Your task to perform on an android device: Add macbook pro 15 inch to the cart on newegg Image 0: 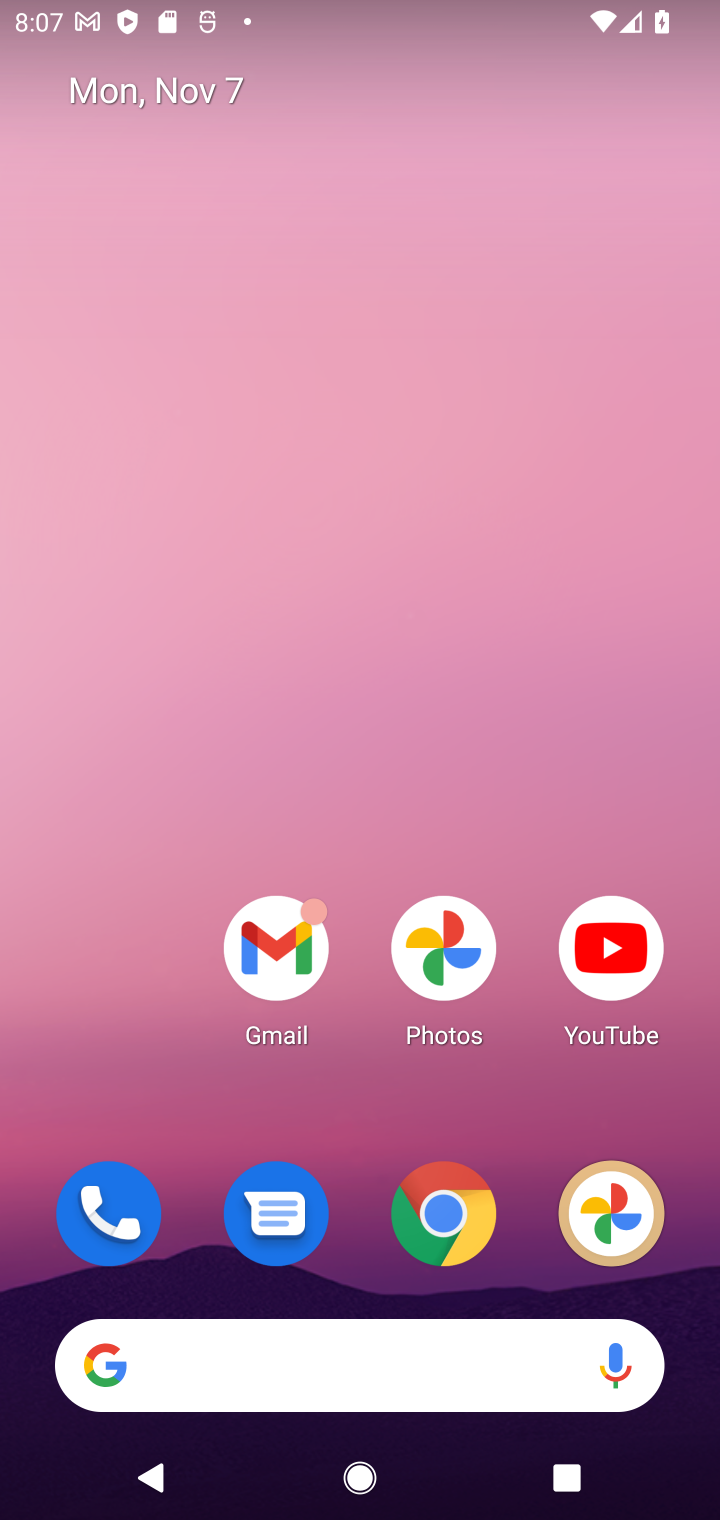
Step 0: click (440, 1216)
Your task to perform on an android device: Add macbook pro 15 inch to the cart on newegg Image 1: 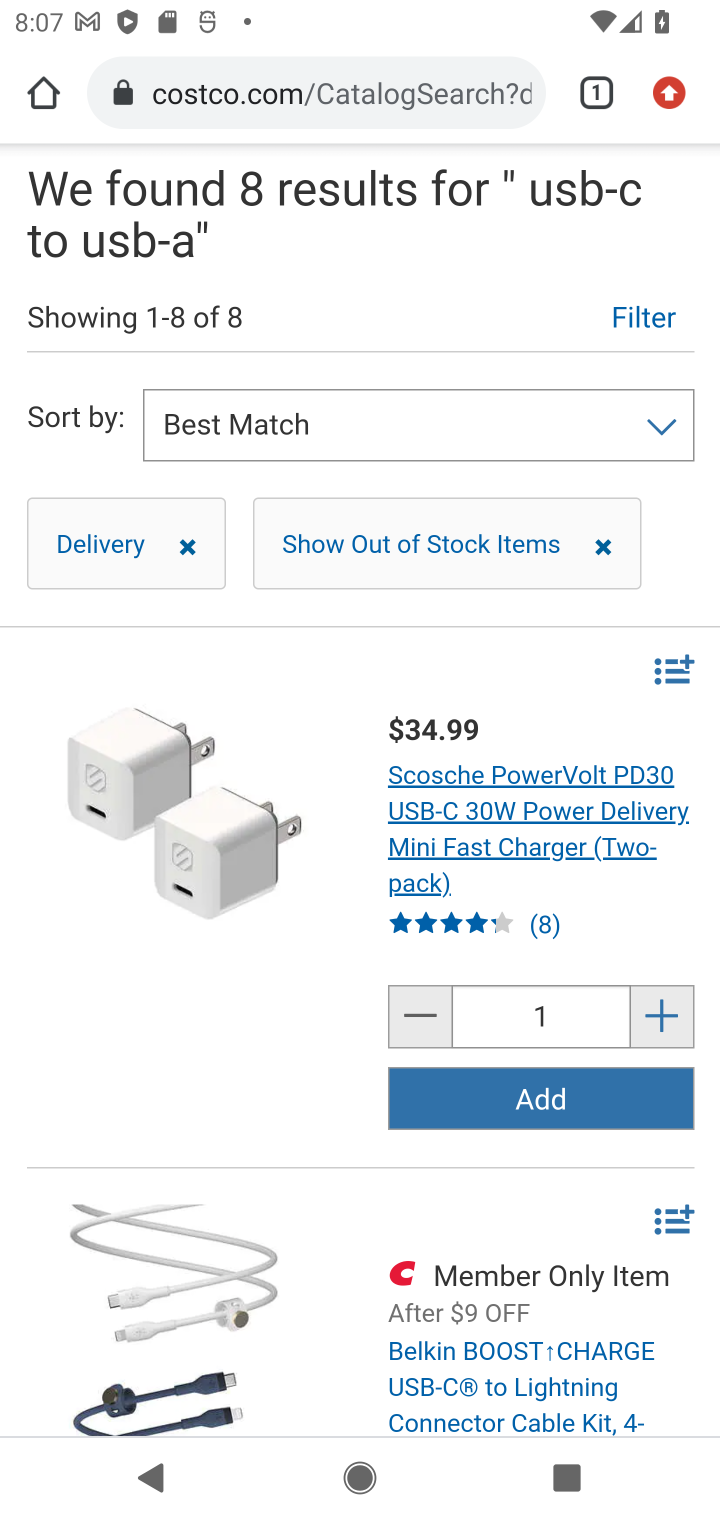
Step 1: click (274, 96)
Your task to perform on an android device: Add macbook pro 15 inch to the cart on newegg Image 2: 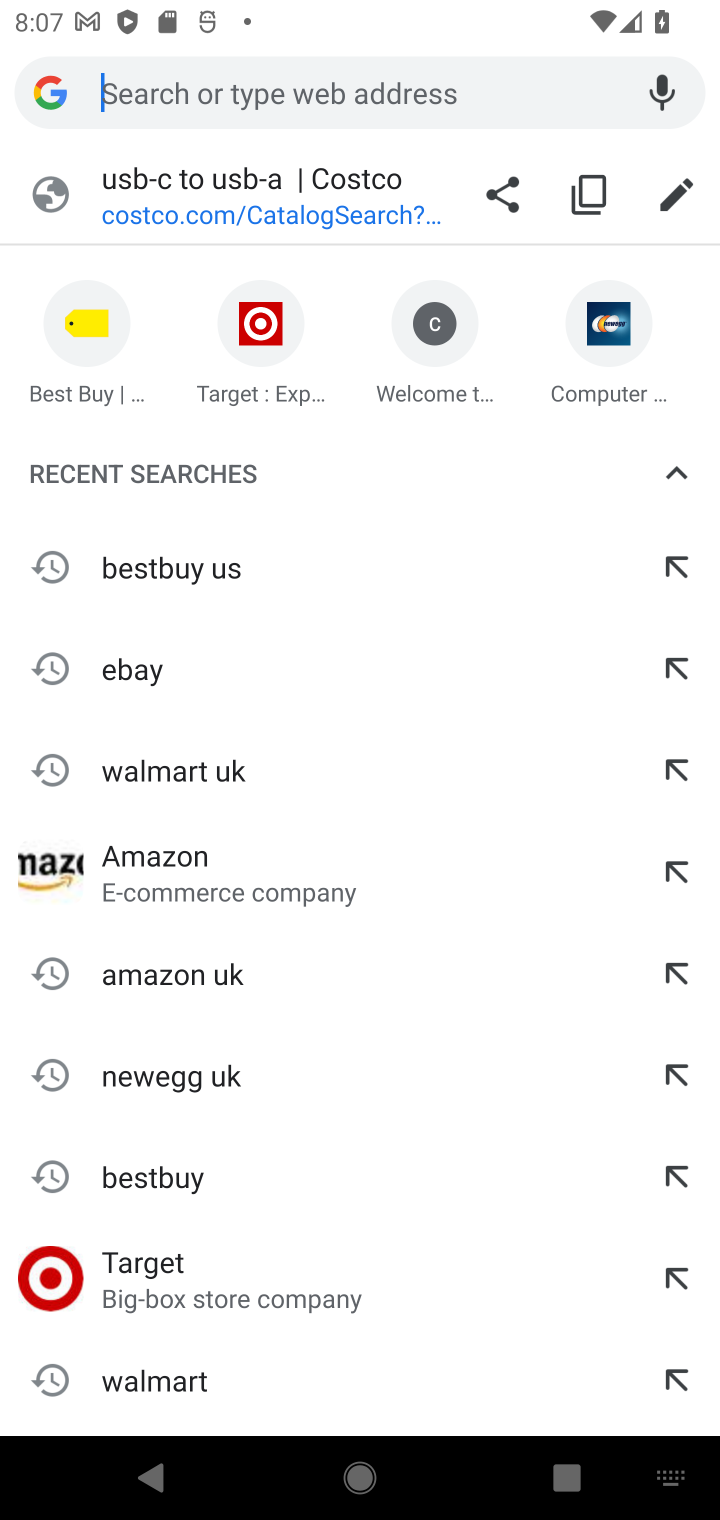
Step 2: type "newegg.com"
Your task to perform on an android device: Add macbook pro 15 inch to the cart on newegg Image 3: 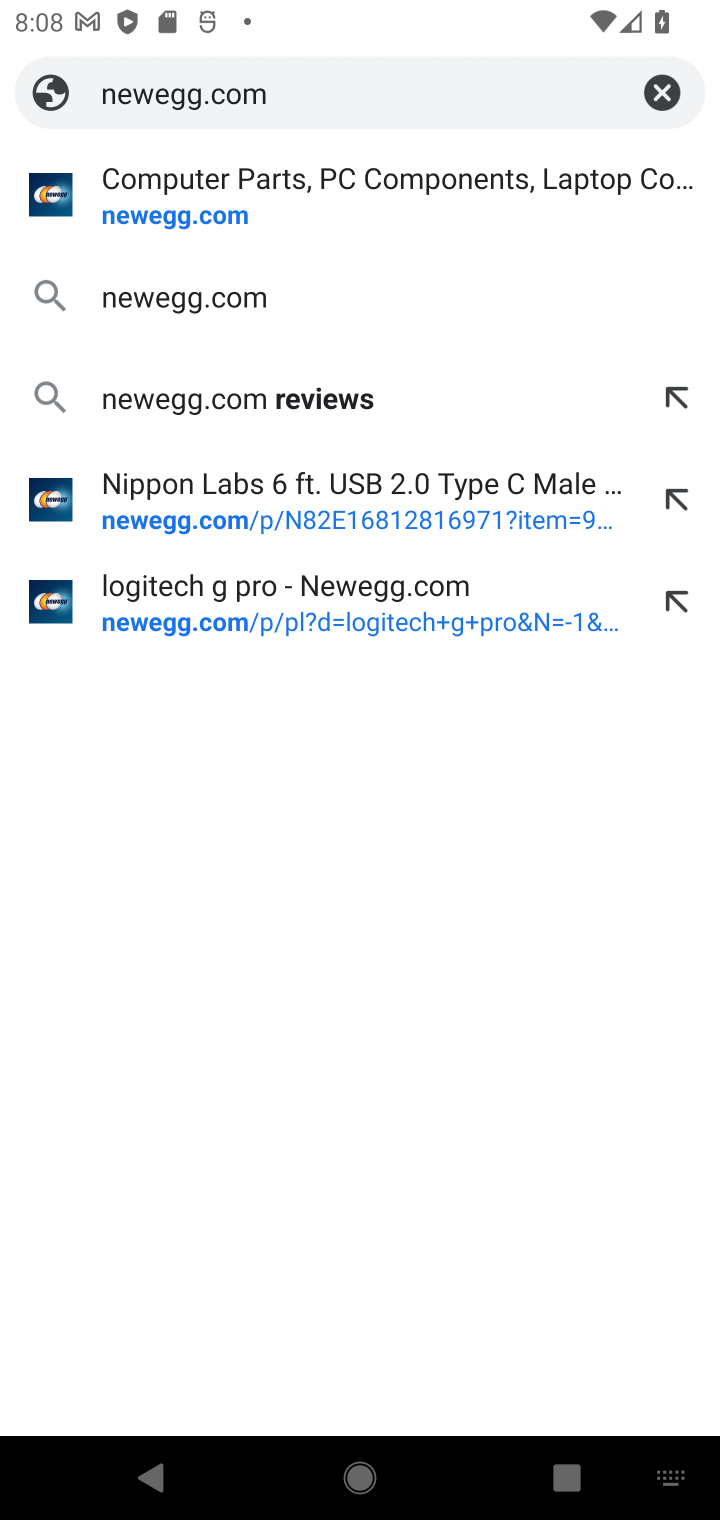
Step 3: click (165, 224)
Your task to perform on an android device: Add macbook pro 15 inch to the cart on newegg Image 4: 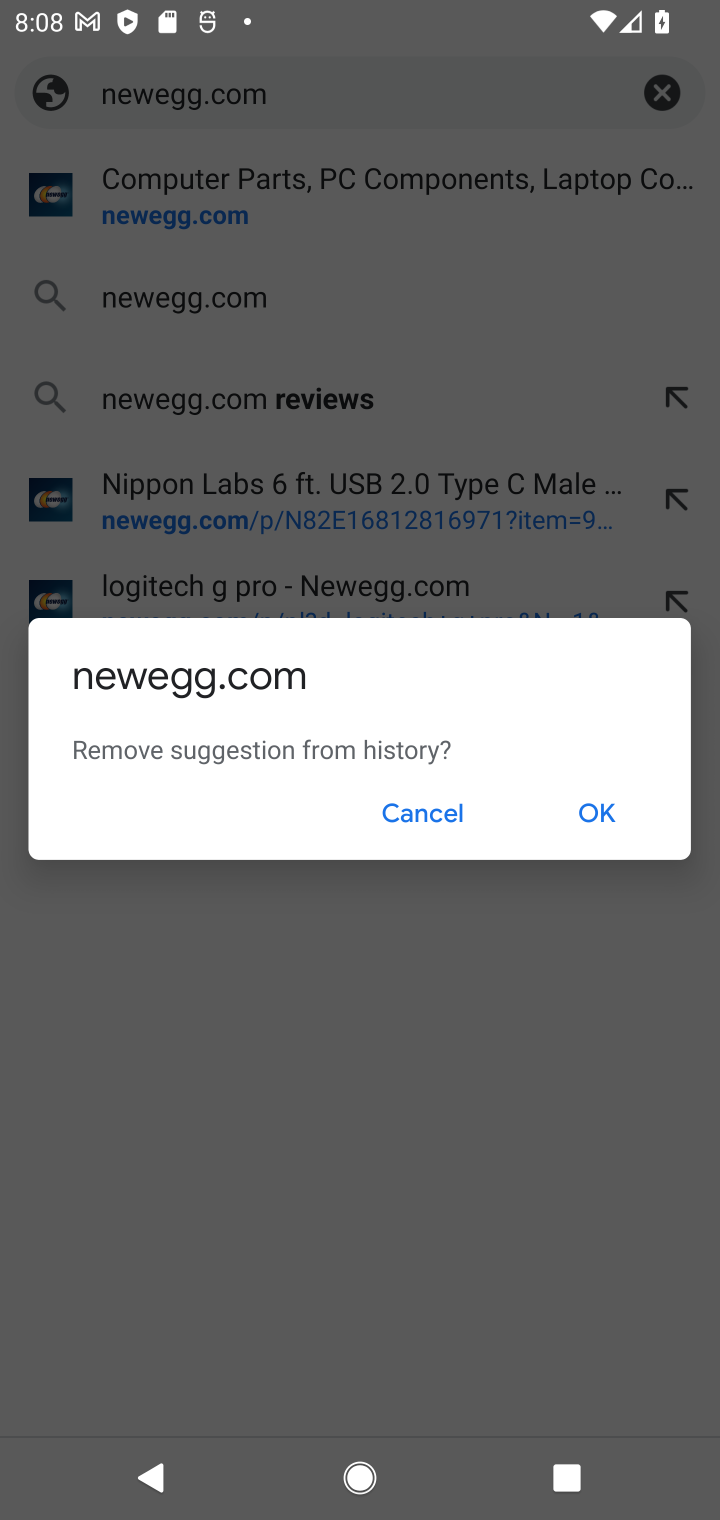
Step 4: click (436, 817)
Your task to perform on an android device: Add macbook pro 15 inch to the cart on newegg Image 5: 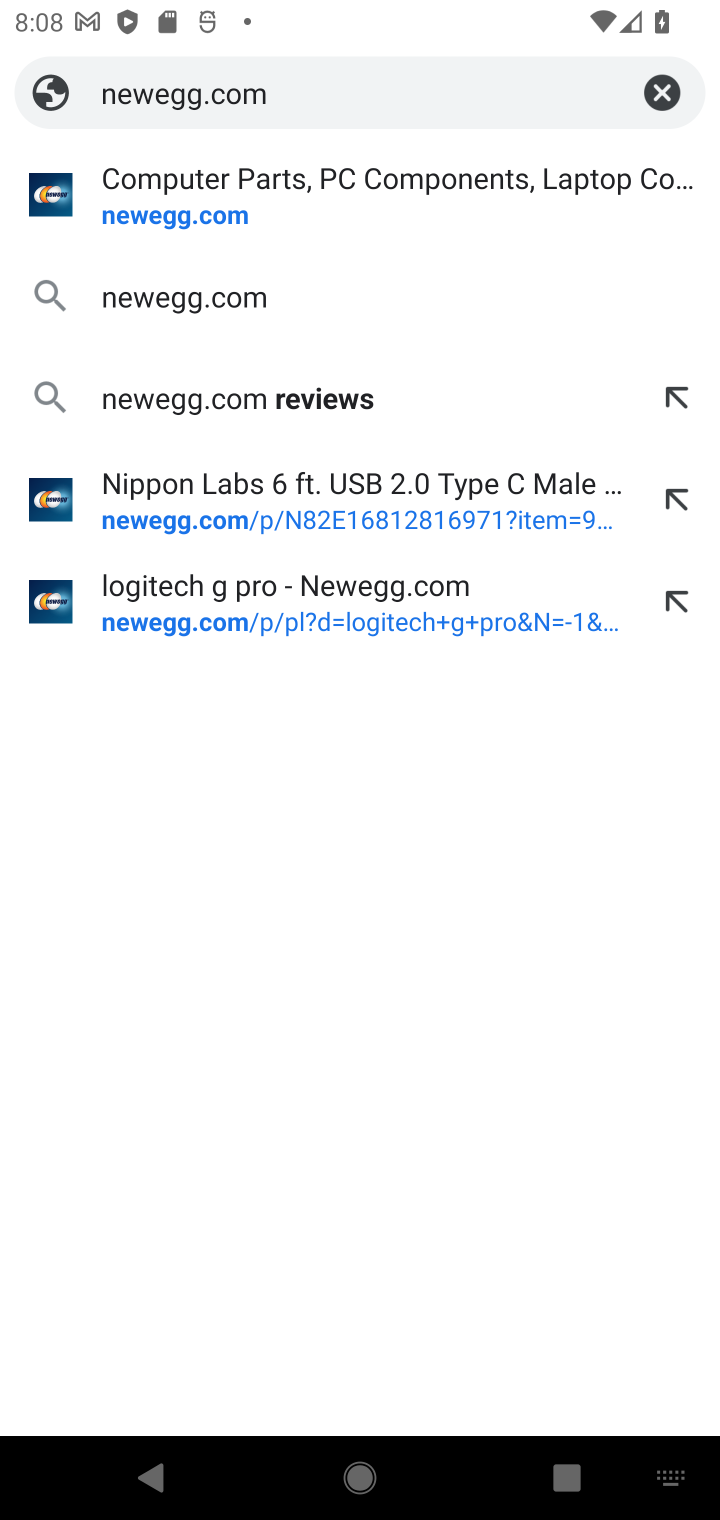
Step 5: click (154, 235)
Your task to perform on an android device: Add macbook pro 15 inch to the cart on newegg Image 6: 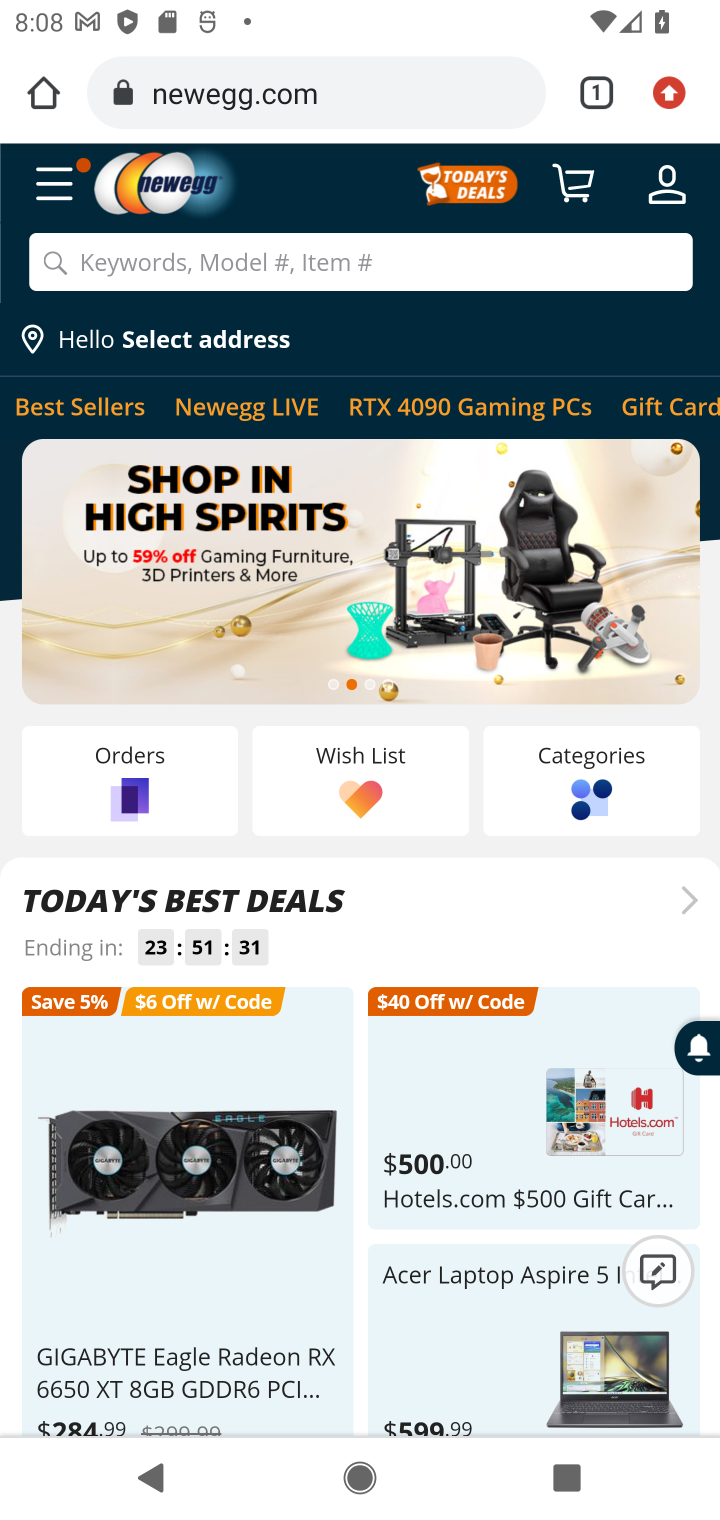
Step 6: click (342, 262)
Your task to perform on an android device: Add macbook pro 15 inch to the cart on newegg Image 7: 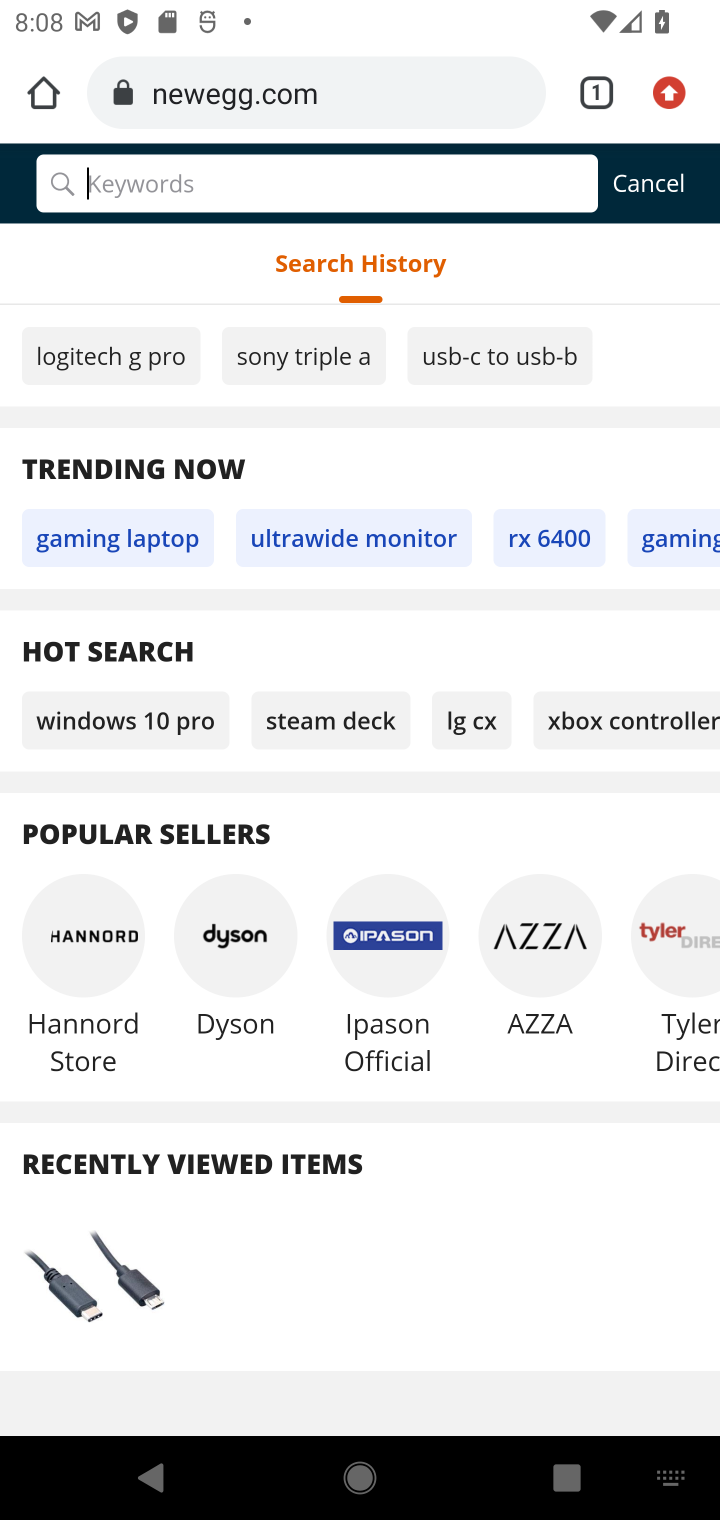
Step 7: click (342, 262)
Your task to perform on an android device: Add macbook pro 15 inch to the cart on newegg Image 8: 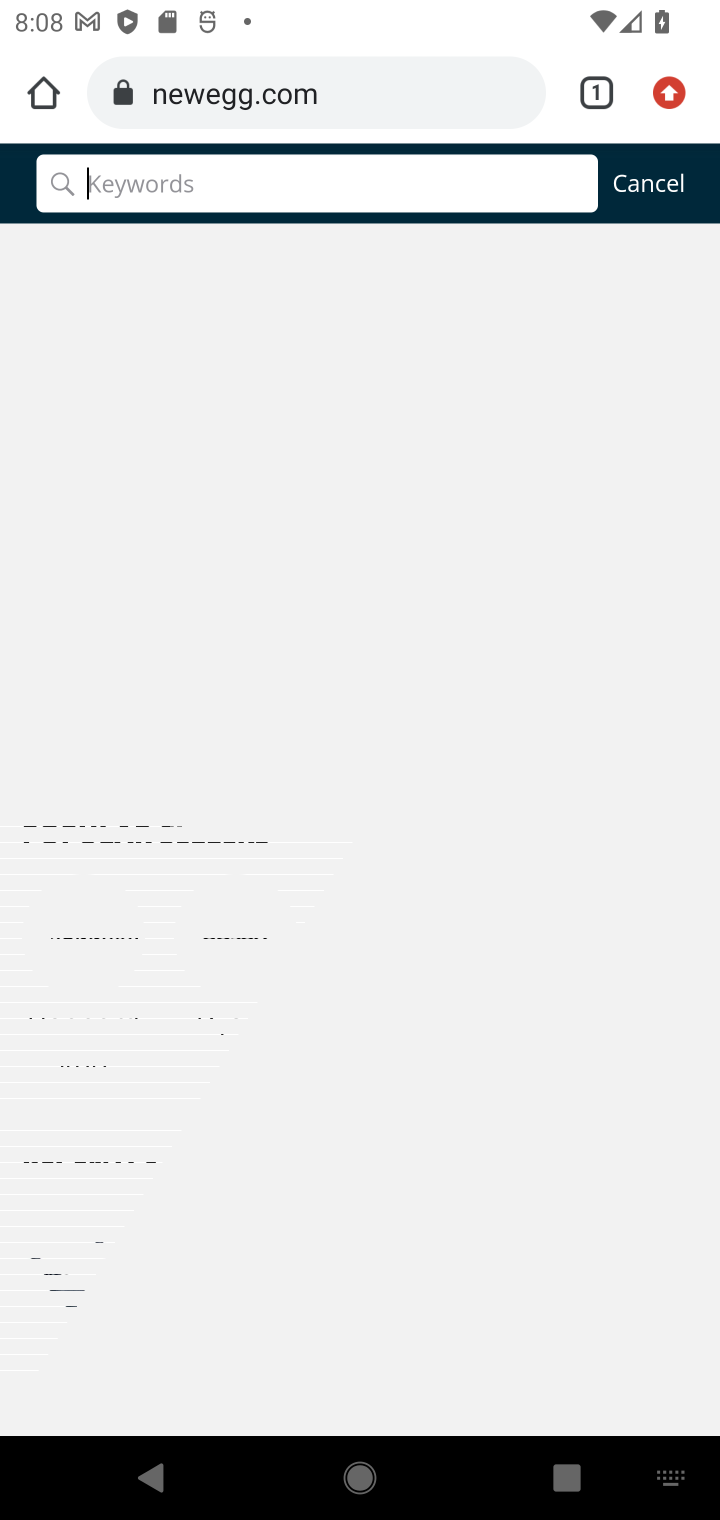
Step 8: click (342, 202)
Your task to perform on an android device: Add macbook pro 15 inch to the cart on newegg Image 9: 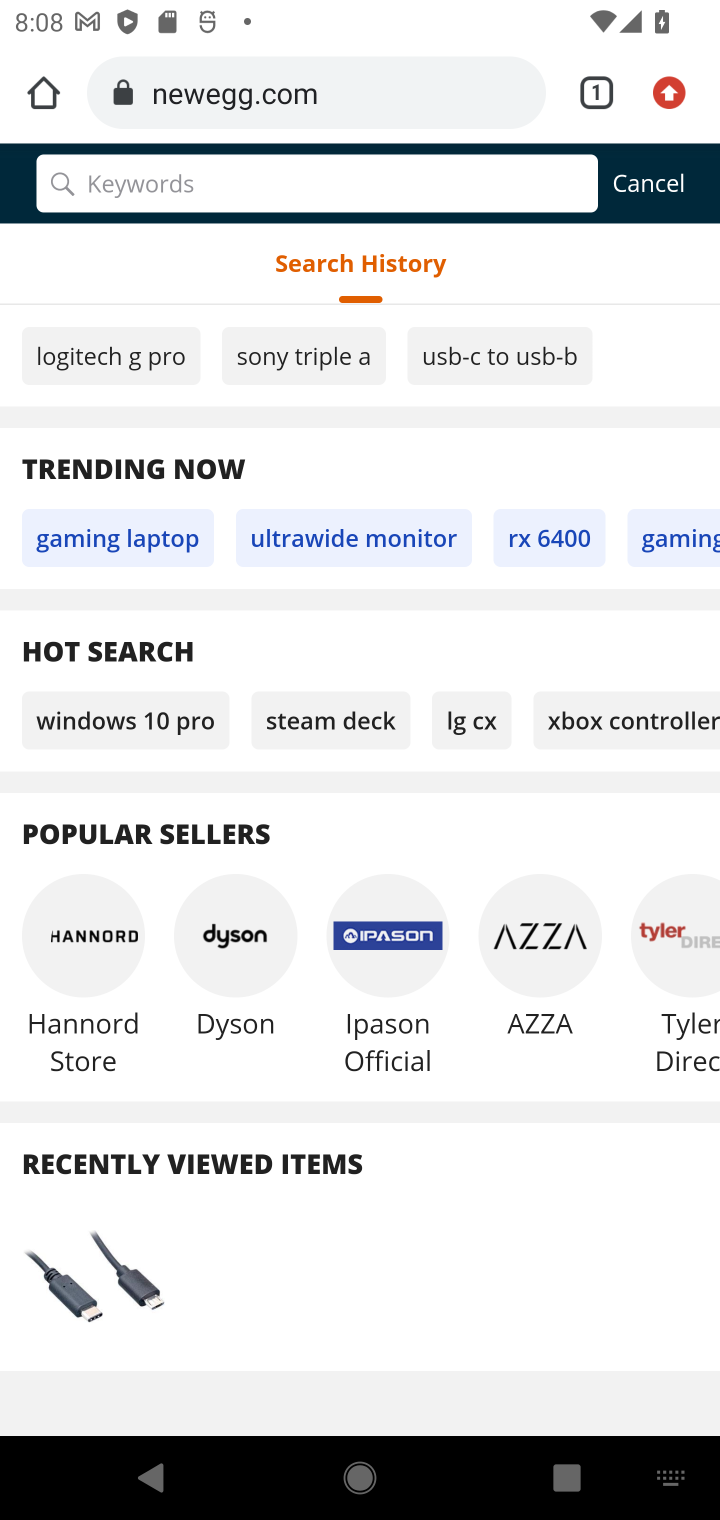
Step 9: type "macbook pro 15 inch"
Your task to perform on an android device: Add macbook pro 15 inch to the cart on newegg Image 10: 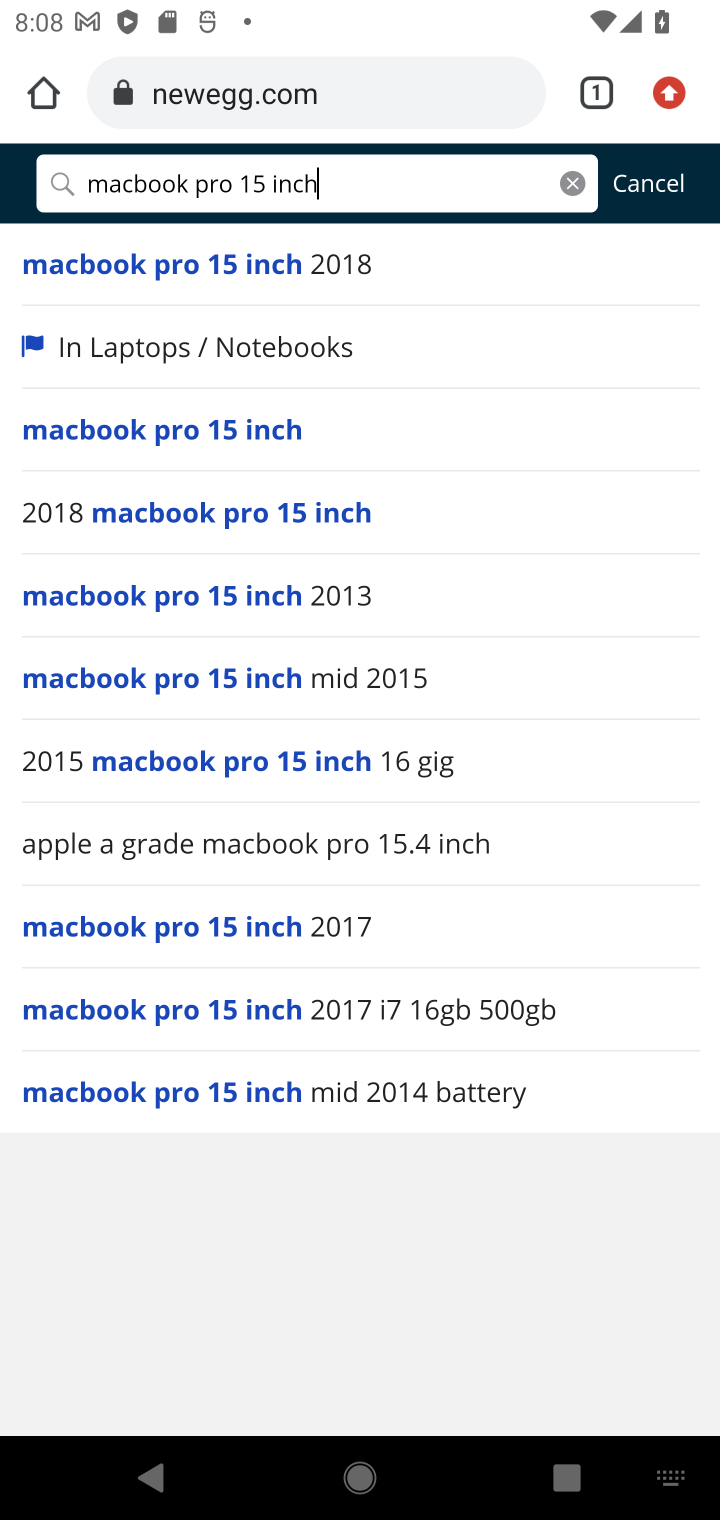
Step 10: click (212, 432)
Your task to perform on an android device: Add macbook pro 15 inch to the cart on newegg Image 11: 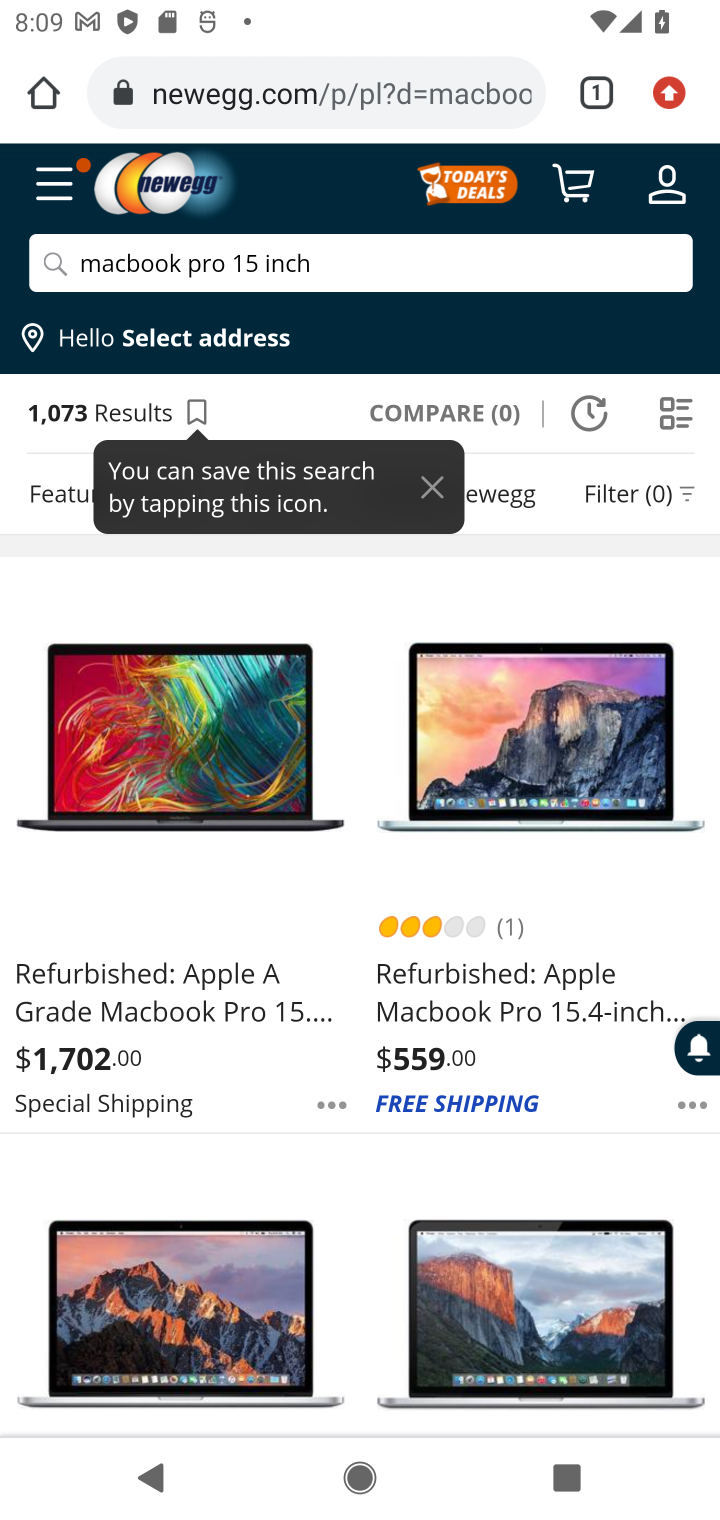
Step 11: click (116, 1014)
Your task to perform on an android device: Add macbook pro 15 inch to the cart on newegg Image 12: 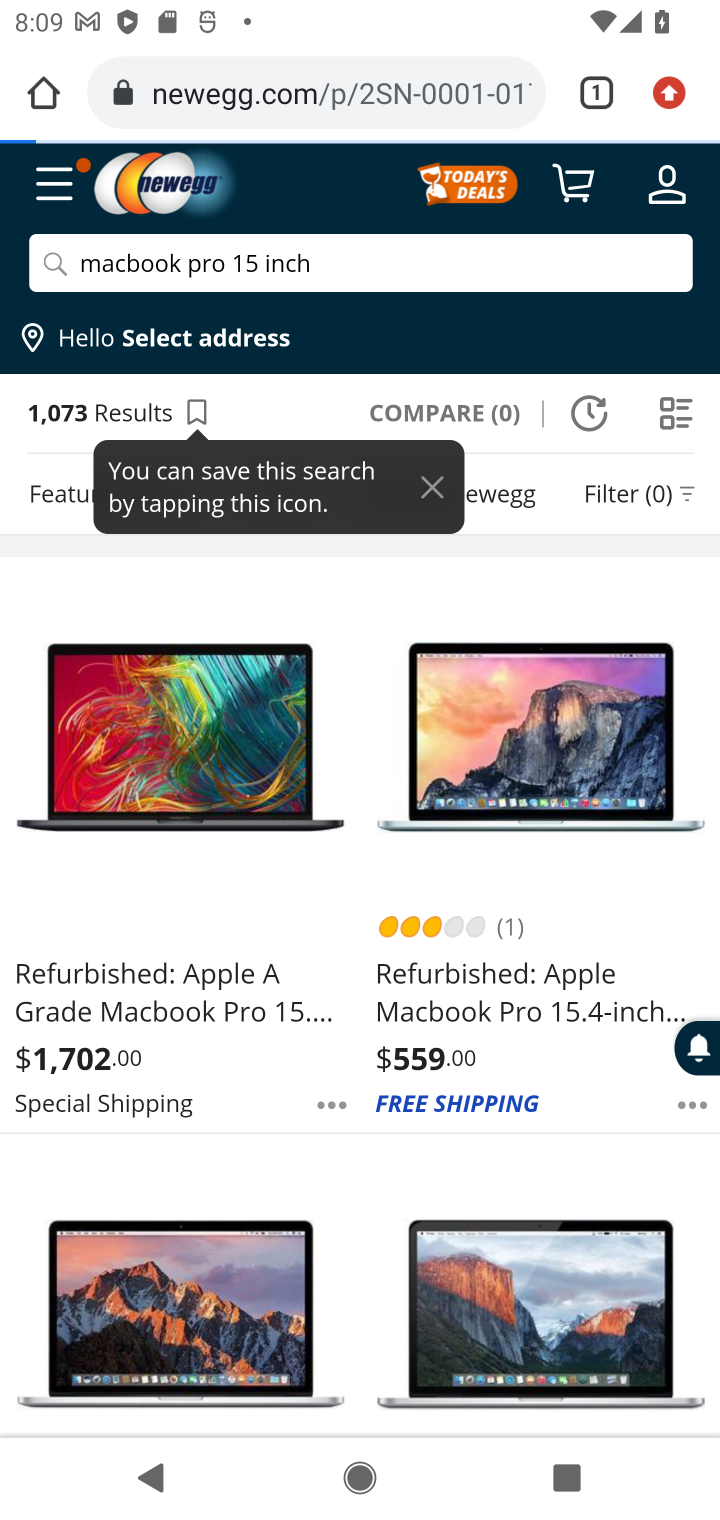
Step 12: click (130, 978)
Your task to perform on an android device: Add macbook pro 15 inch to the cart on newegg Image 13: 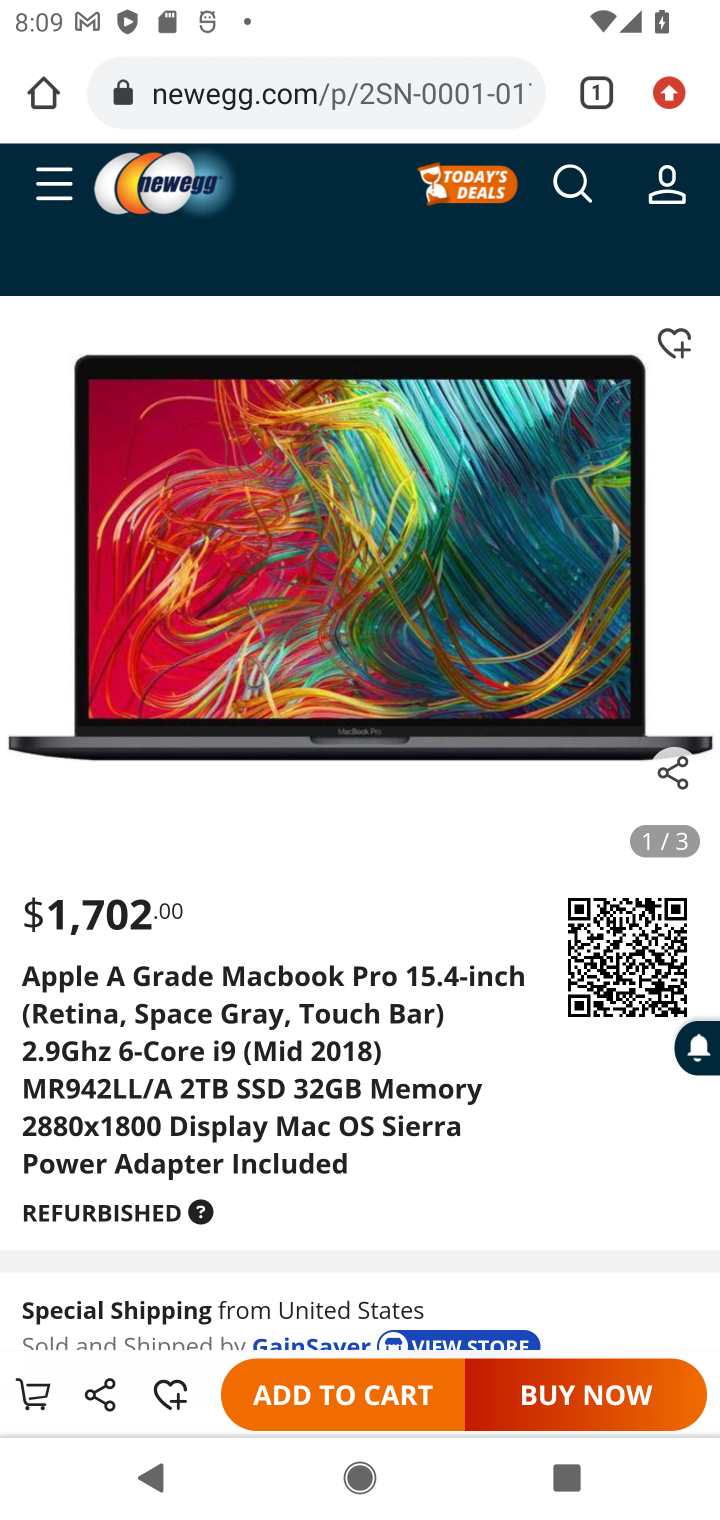
Step 13: click (385, 1393)
Your task to perform on an android device: Add macbook pro 15 inch to the cart on newegg Image 14: 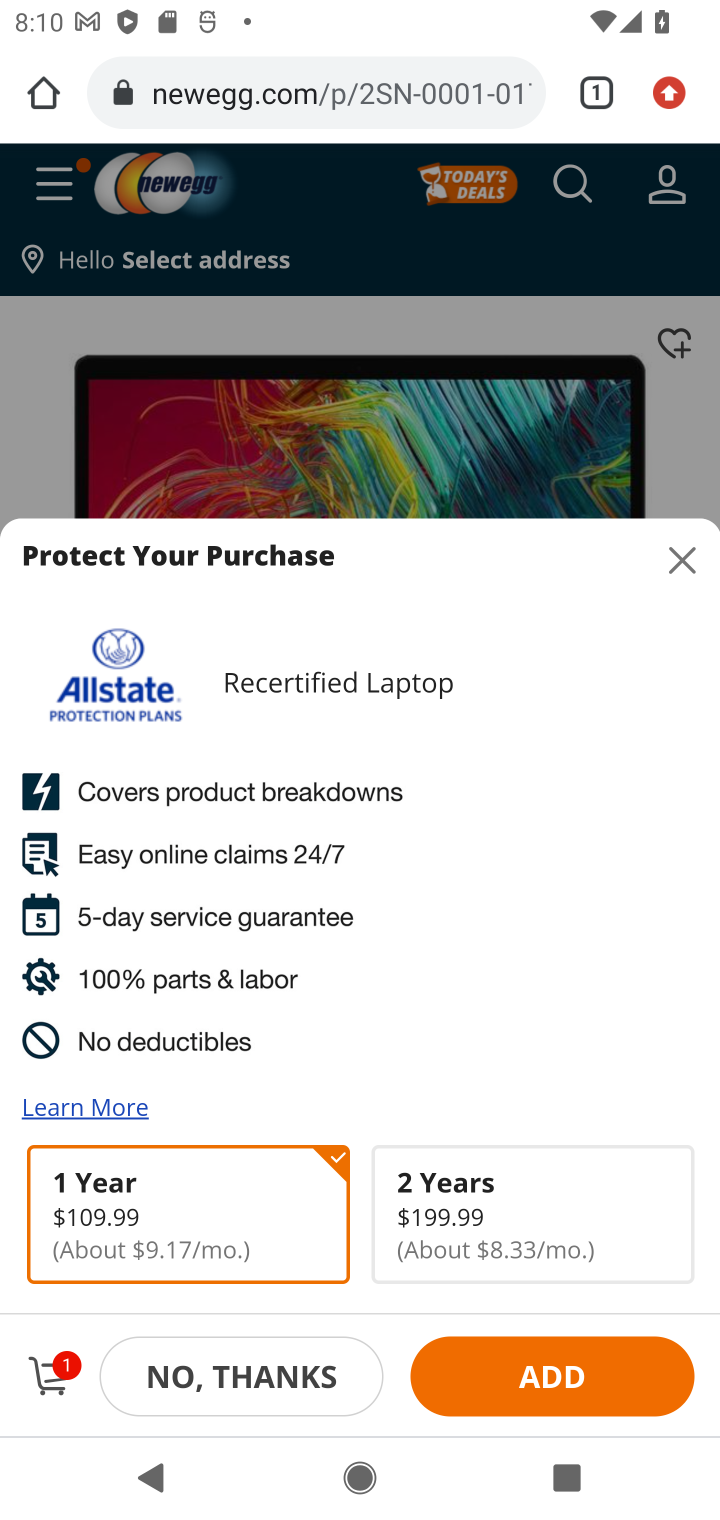
Step 14: task complete